Your task to perform on an android device: check data usage Image 0: 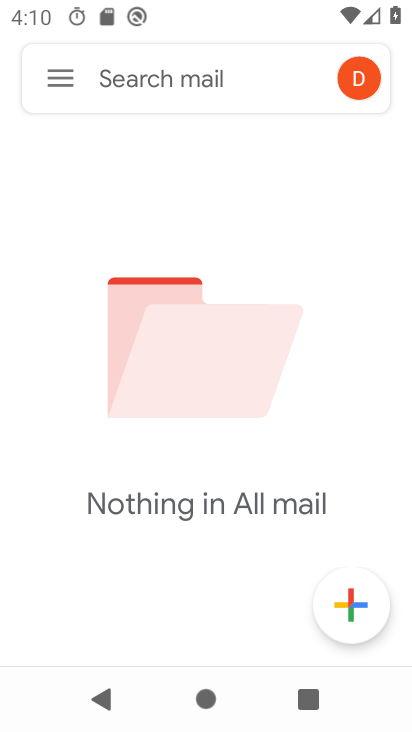
Step 0: press home button
Your task to perform on an android device: check data usage Image 1: 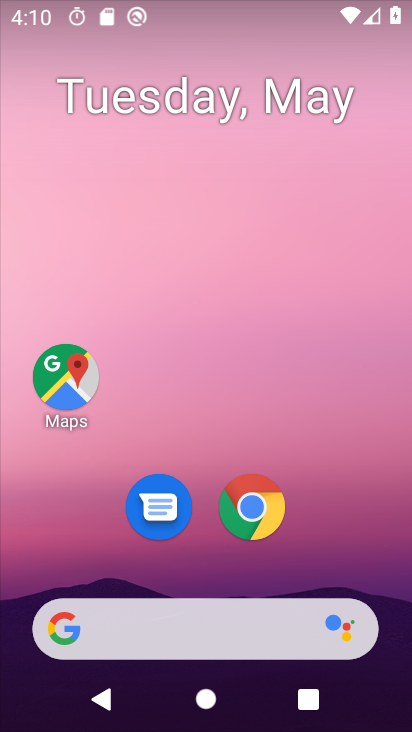
Step 1: drag from (304, 570) to (351, 32)
Your task to perform on an android device: check data usage Image 2: 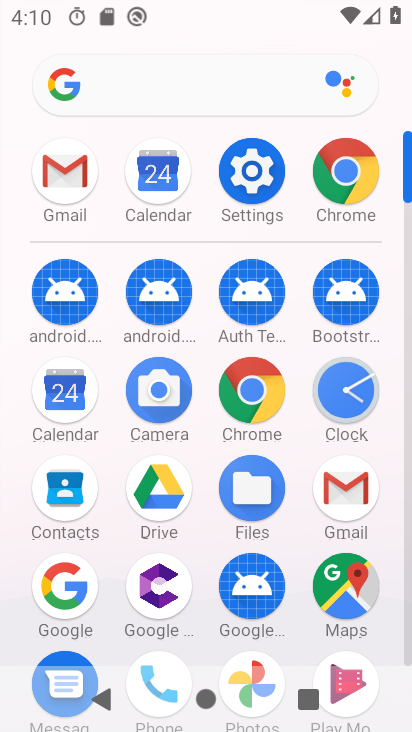
Step 2: click (250, 181)
Your task to perform on an android device: check data usage Image 3: 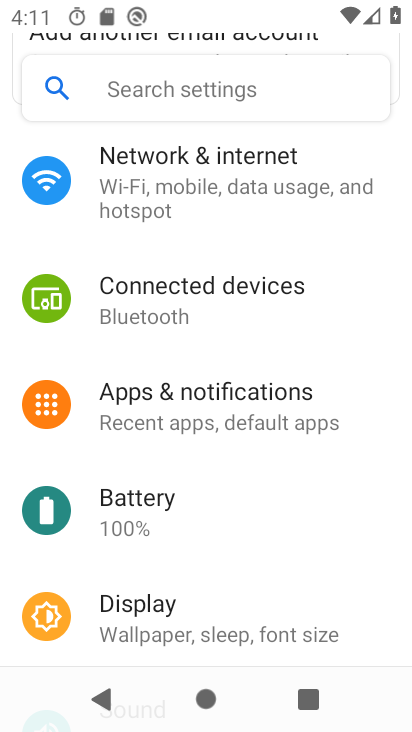
Step 3: click (246, 187)
Your task to perform on an android device: check data usage Image 4: 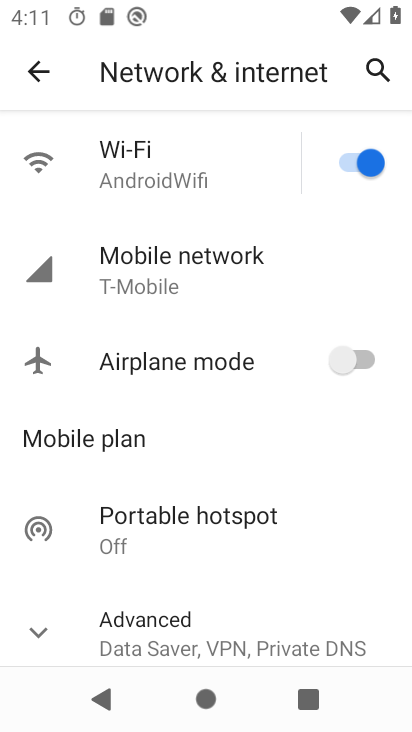
Step 4: click (237, 297)
Your task to perform on an android device: check data usage Image 5: 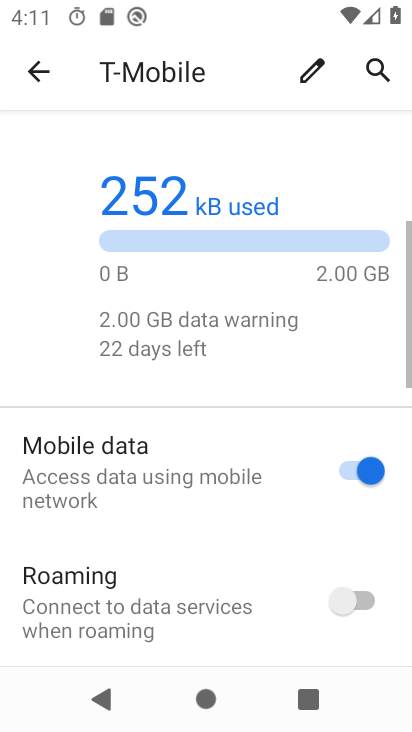
Step 5: drag from (207, 447) to (285, 204)
Your task to perform on an android device: check data usage Image 6: 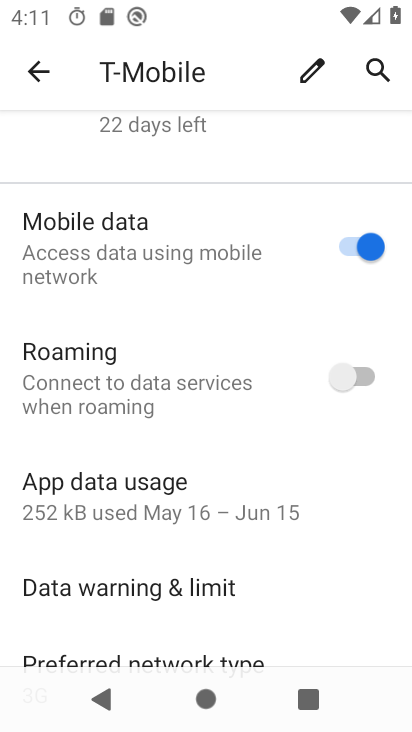
Step 6: click (214, 494)
Your task to perform on an android device: check data usage Image 7: 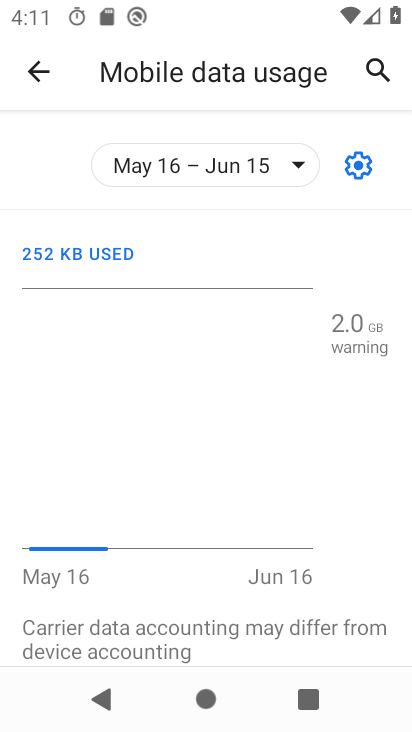
Step 7: task complete